Your task to perform on an android device: open app "Pandora - Music & Podcasts" Image 0: 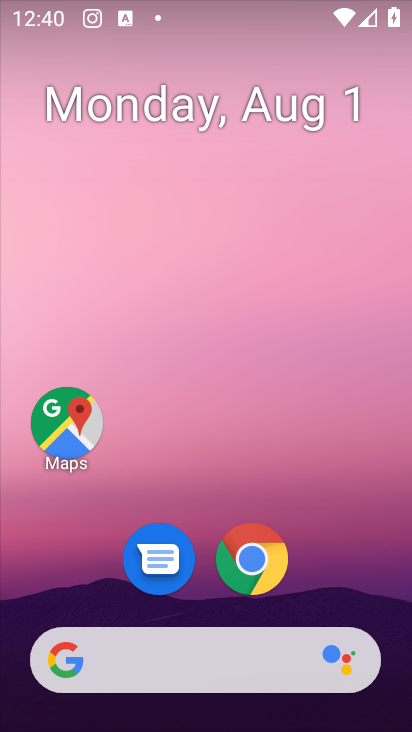
Step 0: drag from (121, 412) to (167, 4)
Your task to perform on an android device: open app "Pandora - Music & Podcasts" Image 1: 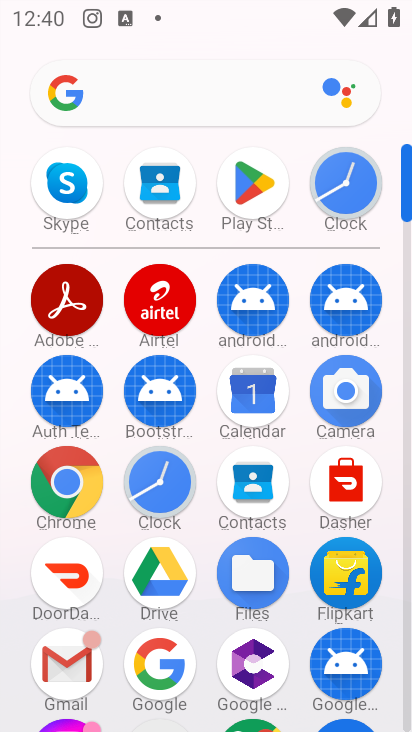
Step 1: click (249, 193)
Your task to perform on an android device: open app "Pandora - Music & Podcasts" Image 2: 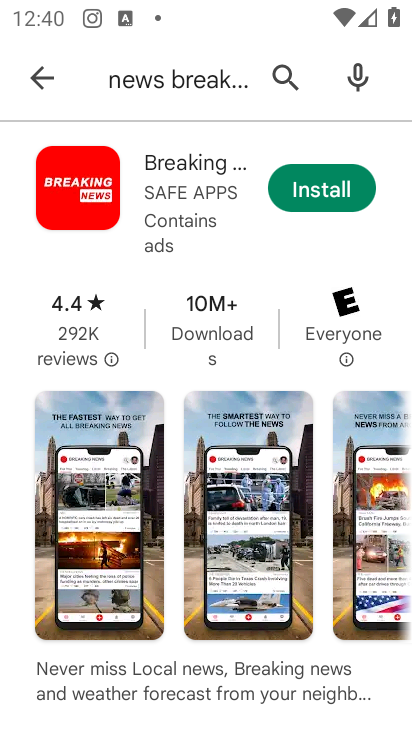
Step 2: click (278, 74)
Your task to perform on an android device: open app "Pandora - Music & Podcasts" Image 3: 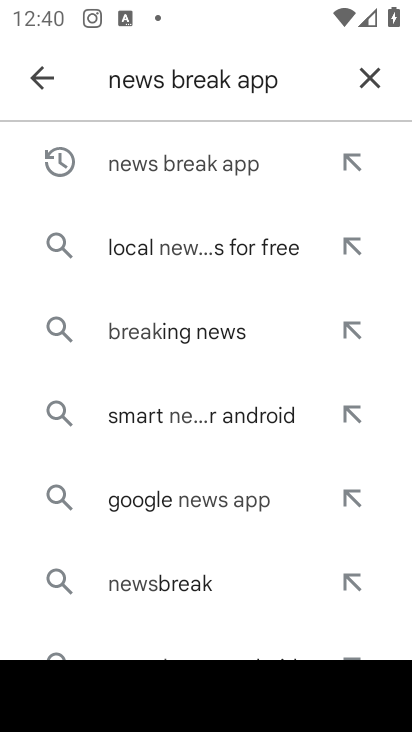
Step 3: click (363, 69)
Your task to perform on an android device: open app "Pandora - Music & Podcasts" Image 4: 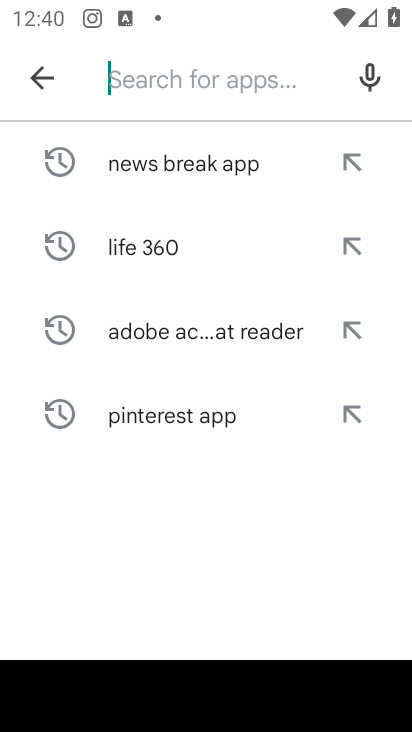
Step 4: click (174, 87)
Your task to perform on an android device: open app "Pandora - Music & Podcasts" Image 5: 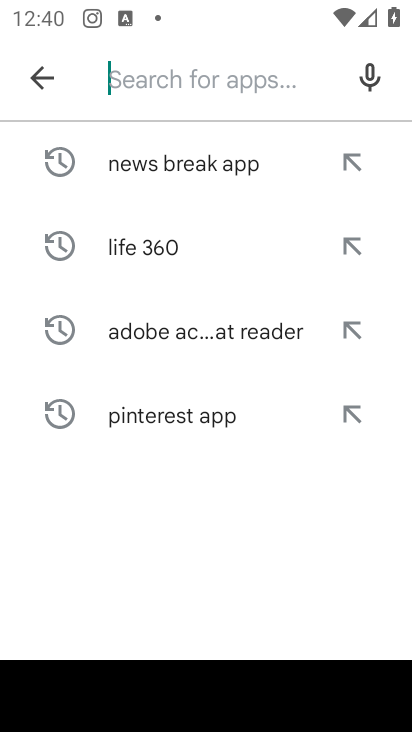
Step 5: type "pandora"
Your task to perform on an android device: open app "Pandora - Music & Podcasts" Image 6: 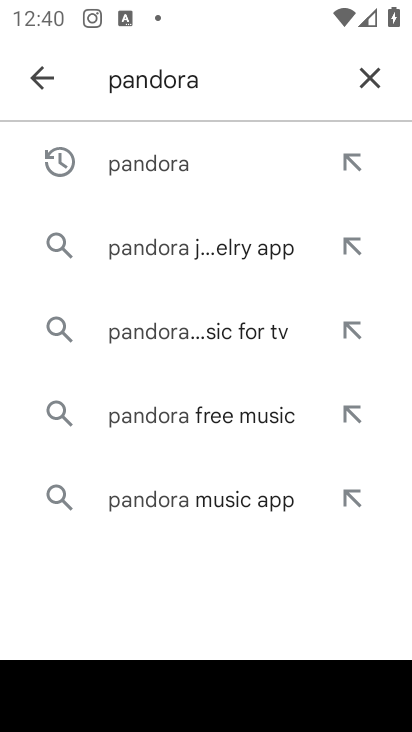
Step 6: click (190, 166)
Your task to perform on an android device: open app "Pandora - Music & Podcasts" Image 7: 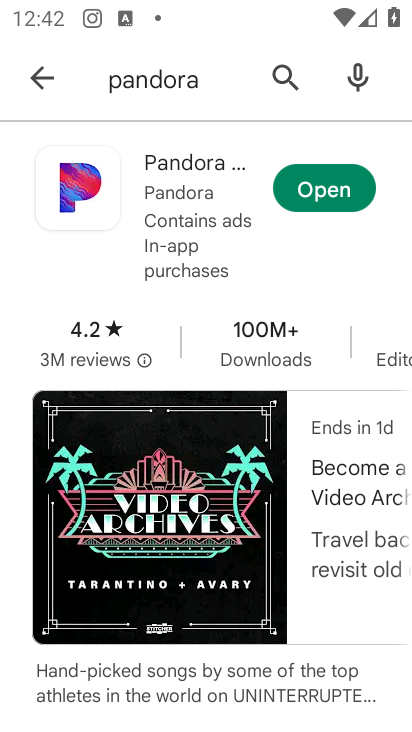
Step 7: click (329, 200)
Your task to perform on an android device: open app "Pandora - Music & Podcasts" Image 8: 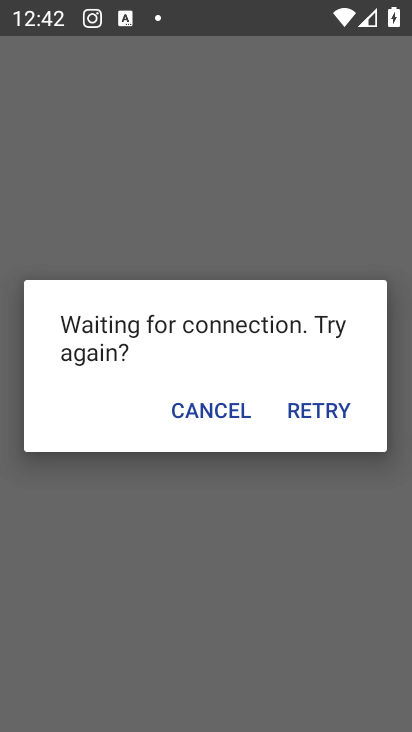
Step 8: click (229, 409)
Your task to perform on an android device: open app "Pandora - Music & Podcasts" Image 9: 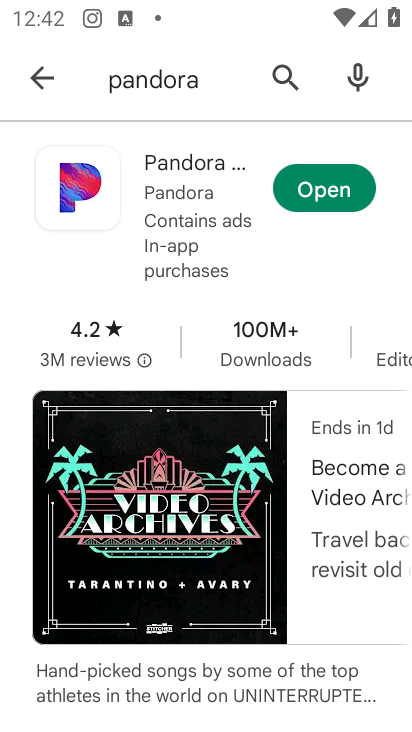
Step 9: press home button
Your task to perform on an android device: open app "Pandora - Music & Podcasts" Image 10: 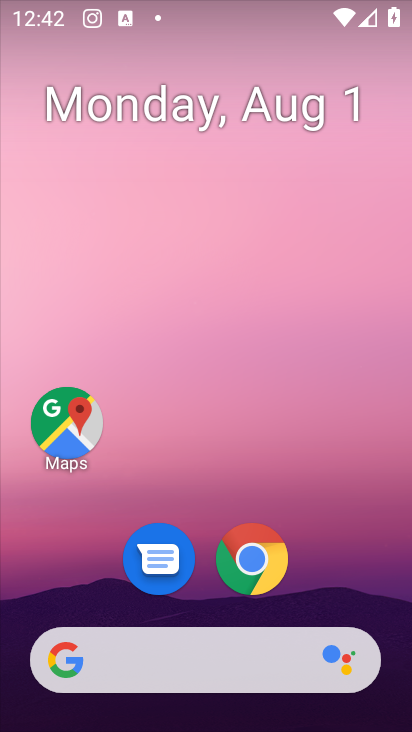
Step 10: drag from (120, 554) to (294, 1)
Your task to perform on an android device: open app "Pandora - Music & Podcasts" Image 11: 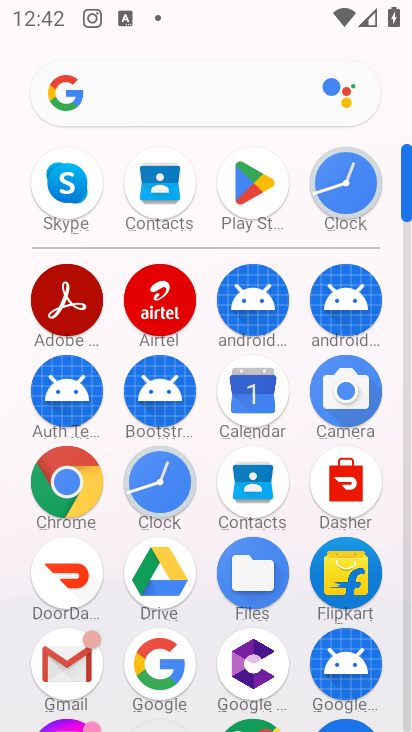
Step 11: click (261, 189)
Your task to perform on an android device: open app "Pandora - Music & Podcasts" Image 12: 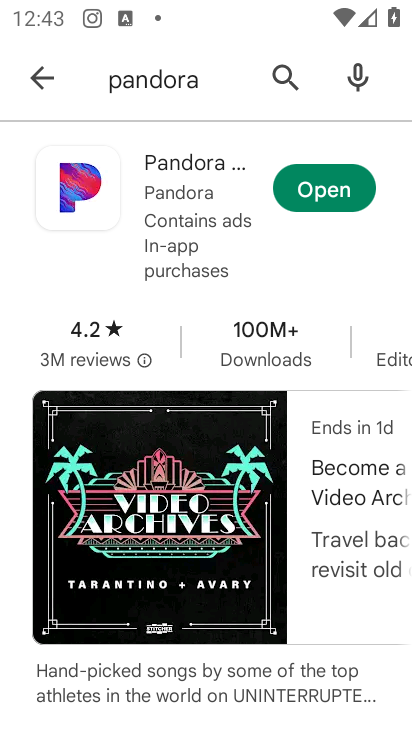
Step 12: click (315, 196)
Your task to perform on an android device: open app "Pandora - Music & Podcasts" Image 13: 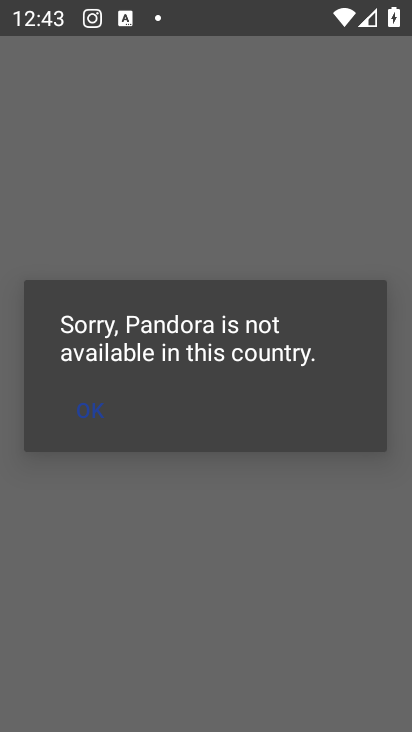
Step 13: task complete